Your task to perform on an android device: add a contact Image 0: 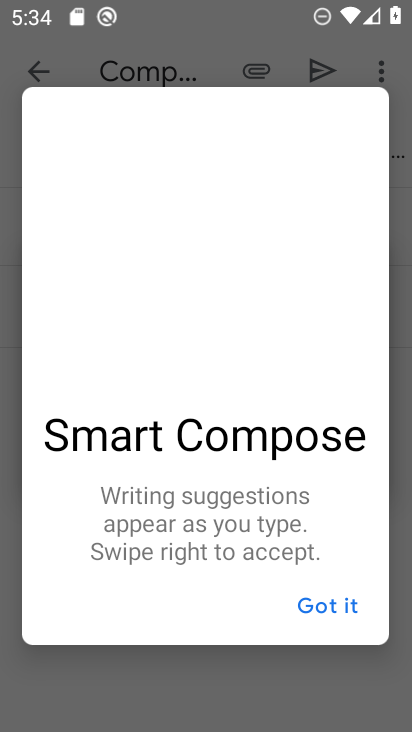
Step 0: press home button
Your task to perform on an android device: add a contact Image 1: 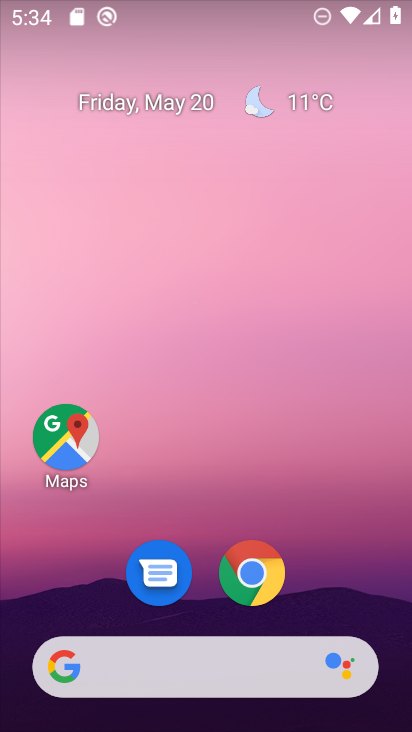
Step 1: drag from (367, 553) to (141, 14)
Your task to perform on an android device: add a contact Image 2: 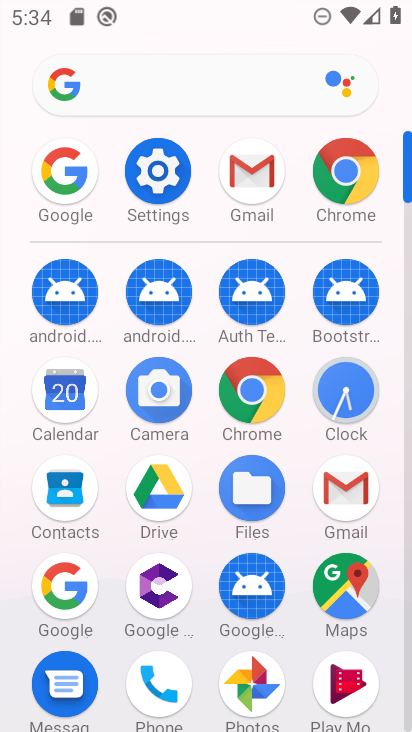
Step 2: click (65, 499)
Your task to perform on an android device: add a contact Image 3: 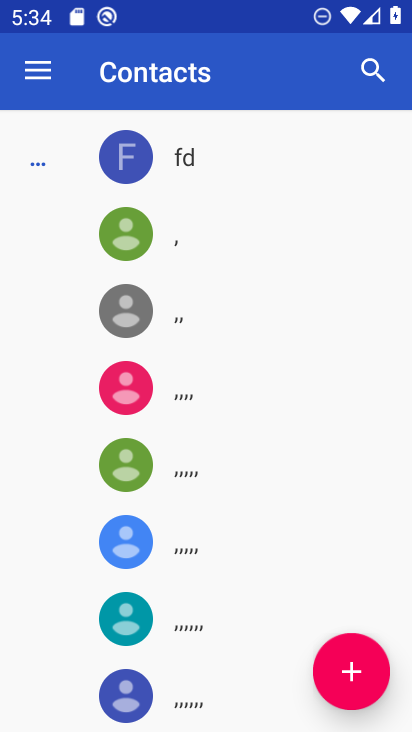
Step 3: click (351, 681)
Your task to perform on an android device: add a contact Image 4: 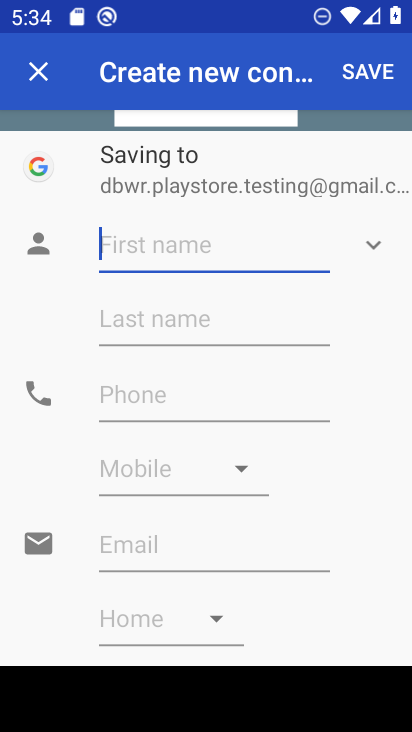
Step 4: type "fhsfh"
Your task to perform on an android device: add a contact Image 5: 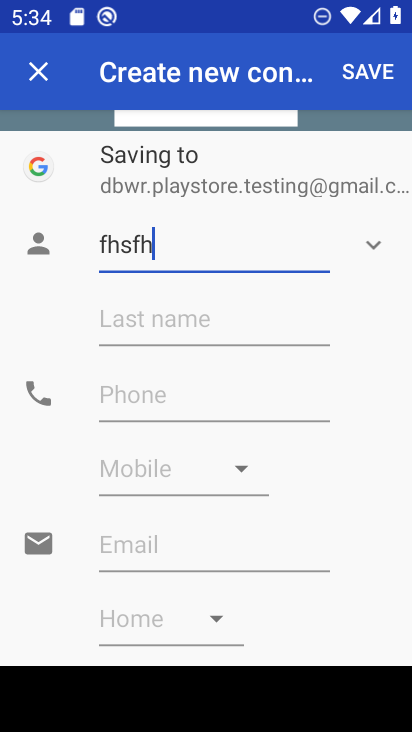
Step 5: click (211, 340)
Your task to perform on an android device: add a contact Image 6: 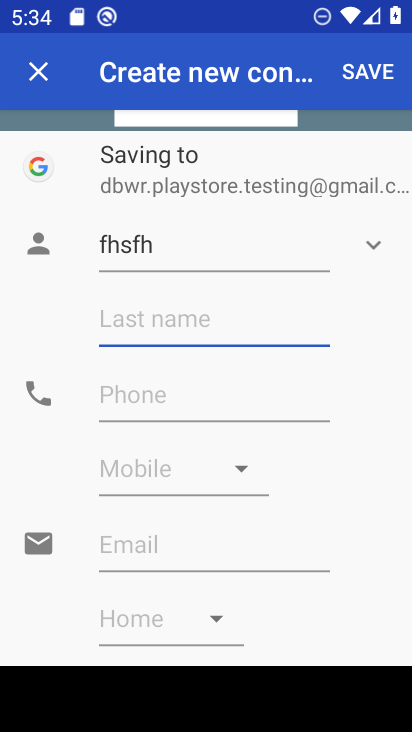
Step 6: type "sdf"
Your task to perform on an android device: add a contact Image 7: 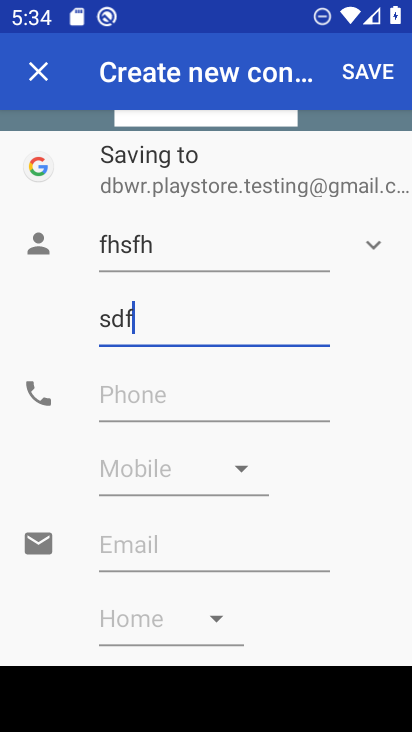
Step 7: type ""
Your task to perform on an android device: add a contact Image 8: 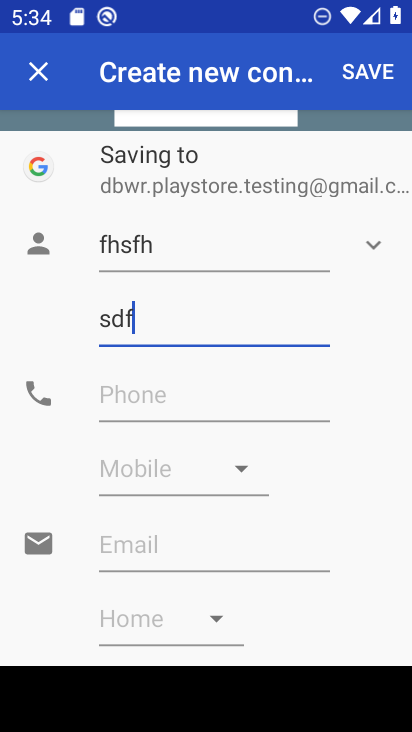
Step 8: click (238, 401)
Your task to perform on an android device: add a contact Image 9: 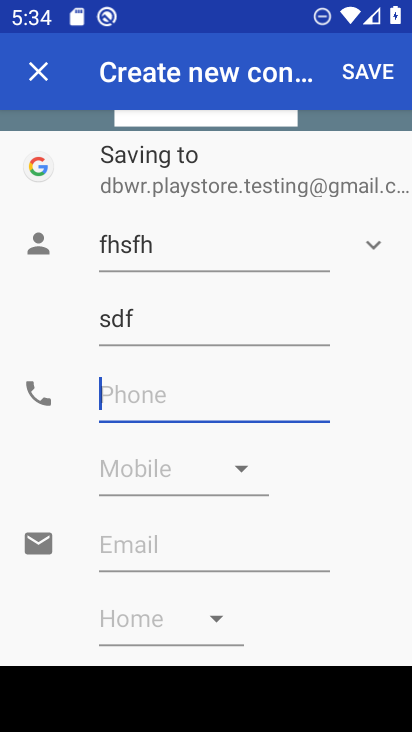
Step 9: type "563456456"
Your task to perform on an android device: add a contact Image 10: 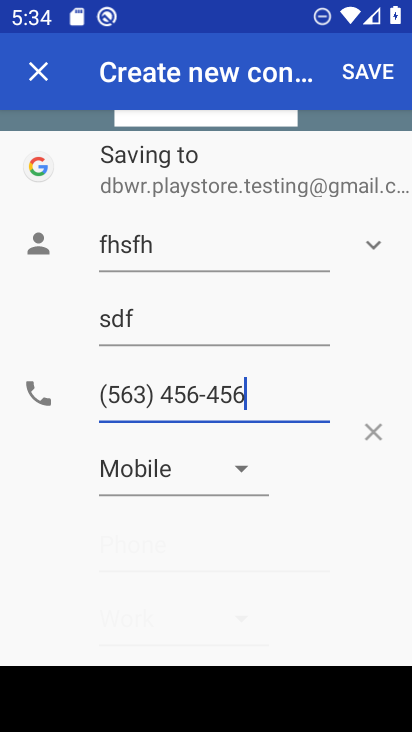
Step 10: type ""
Your task to perform on an android device: add a contact Image 11: 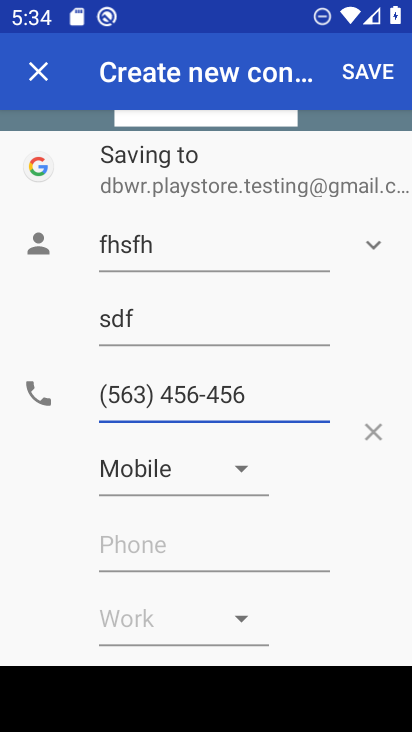
Step 11: click (369, 75)
Your task to perform on an android device: add a contact Image 12: 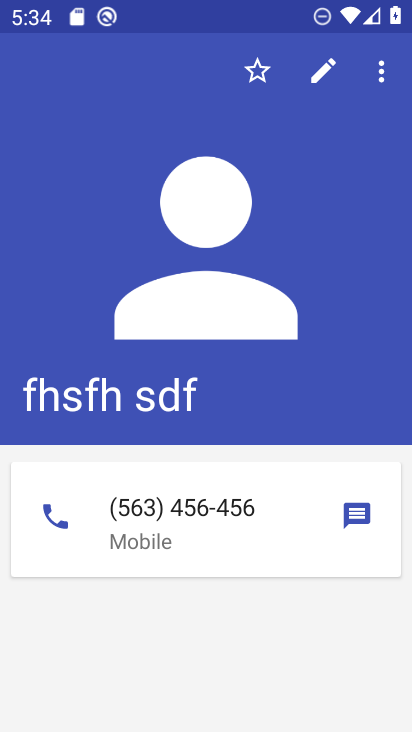
Step 12: task complete